Your task to perform on an android device: find snoozed emails in the gmail app Image 0: 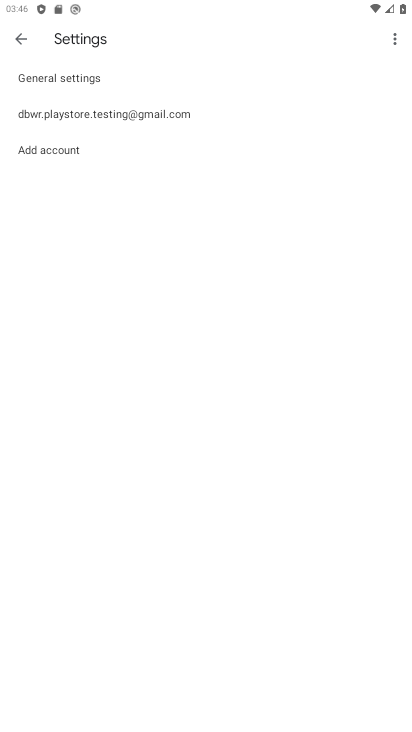
Step 0: press home button
Your task to perform on an android device: find snoozed emails in the gmail app Image 1: 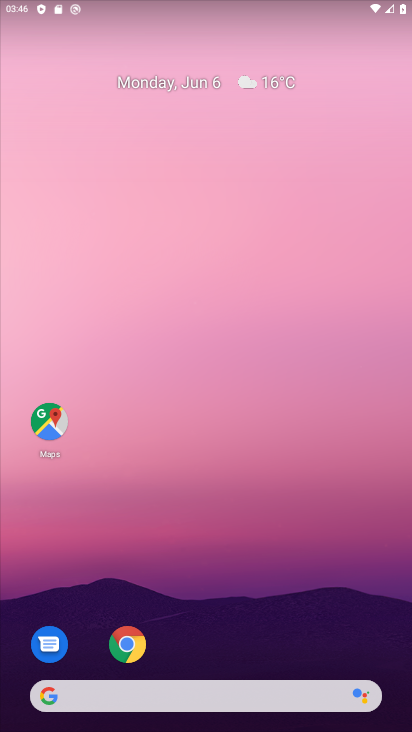
Step 1: drag from (385, 644) to (352, 72)
Your task to perform on an android device: find snoozed emails in the gmail app Image 2: 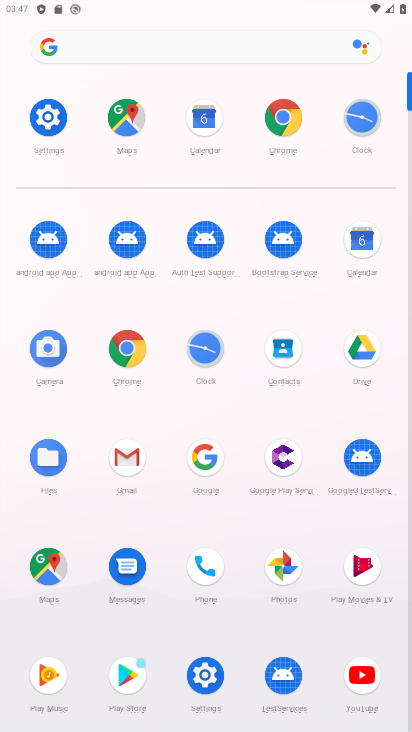
Step 2: click (42, 115)
Your task to perform on an android device: find snoozed emails in the gmail app Image 3: 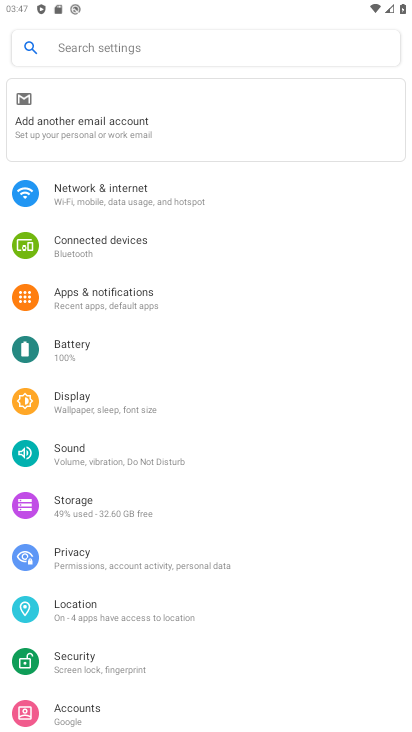
Step 3: press back button
Your task to perform on an android device: find snoozed emails in the gmail app Image 4: 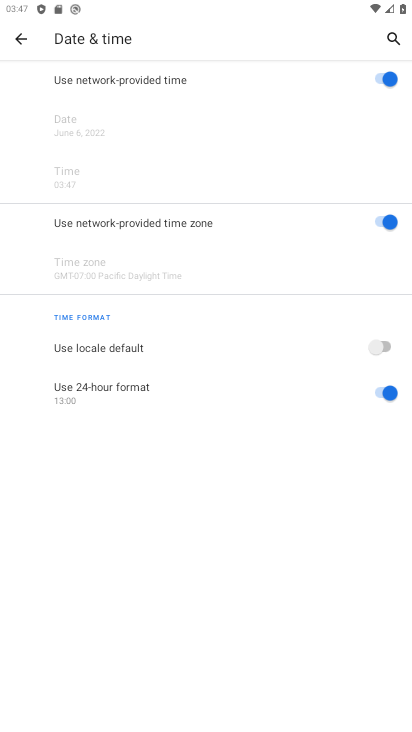
Step 4: press home button
Your task to perform on an android device: find snoozed emails in the gmail app Image 5: 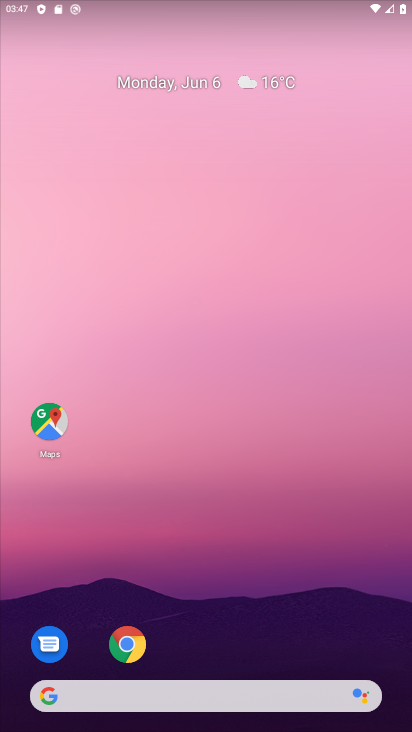
Step 5: drag from (388, 593) to (326, 117)
Your task to perform on an android device: find snoozed emails in the gmail app Image 6: 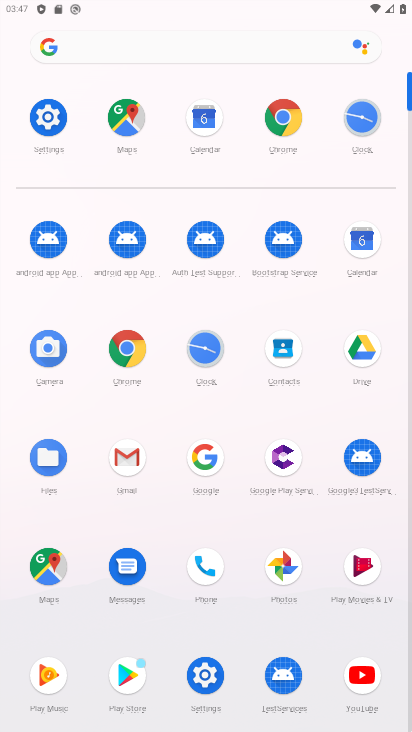
Step 6: click (128, 467)
Your task to perform on an android device: find snoozed emails in the gmail app Image 7: 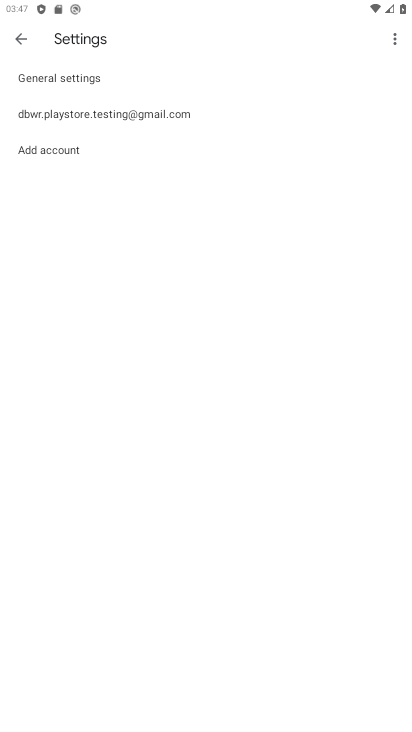
Step 7: click (14, 19)
Your task to perform on an android device: find snoozed emails in the gmail app Image 8: 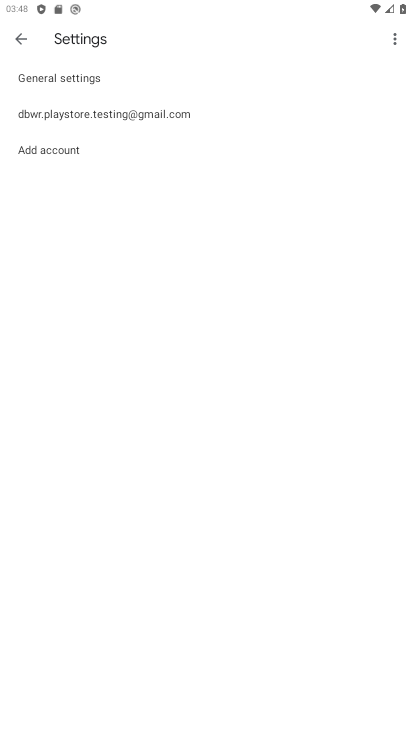
Step 8: click (18, 37)
Your task to perform on an android device: find snoozed emails in the gmail app Image 9: 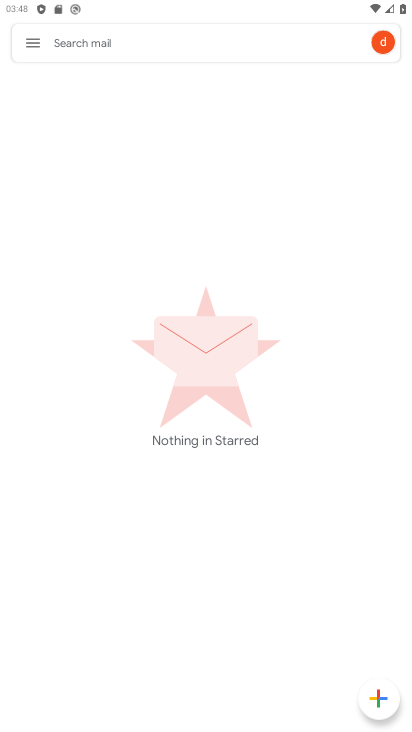
Step 9: click (25, 39)
Your task to perform on an android device: find snoozed emails in the gmail app Image 10: 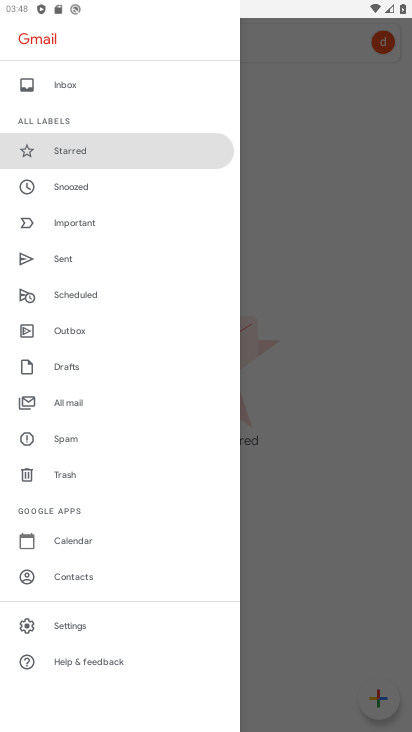
Step 10: click (66, 181)
Your task to perform on an android device: find snoozed emails in the gmail app Image 11: 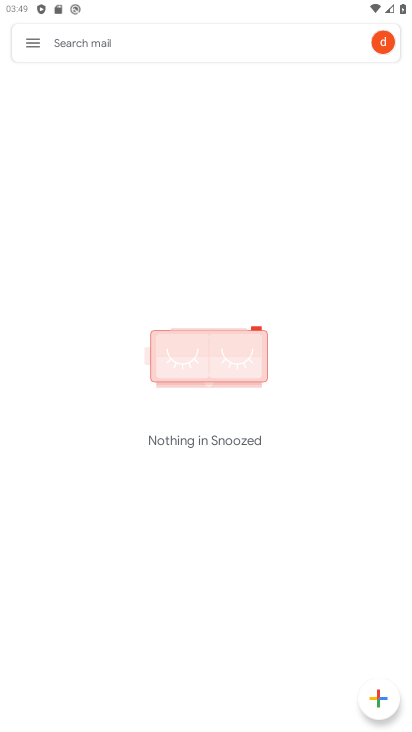
Step 11: task complete